Your task to perform on an android device: Open privacy settings Image 0: 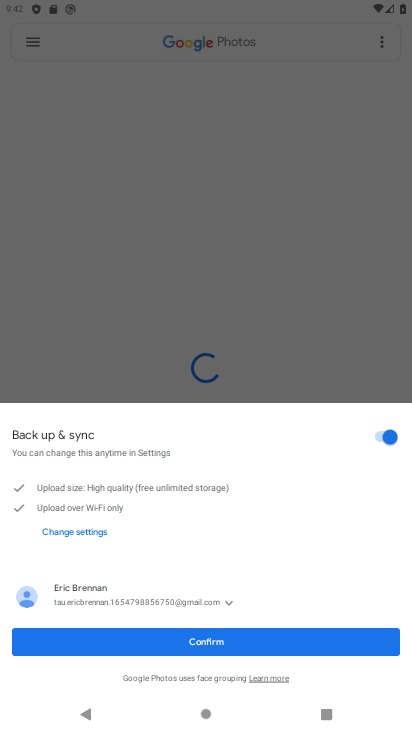
Step 0: press home button
Your task to perform on an android device: Open privacy settings Image 1: 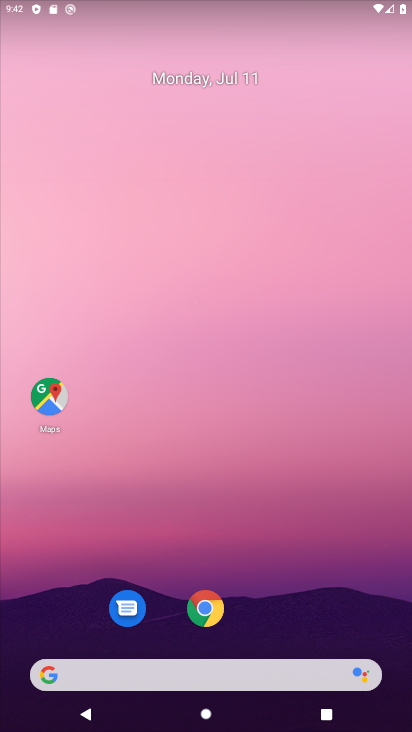
Step 1: drag from (69, 674) to (387, 71)
Your task to perform on an android device: Open privacy settings Image 2: 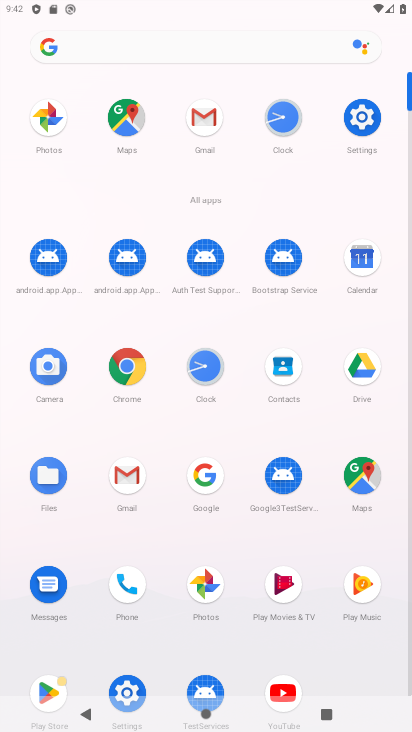
Step 2: click (133, 690)
Your task to perform on an android device: Open privacy settings Image 3: 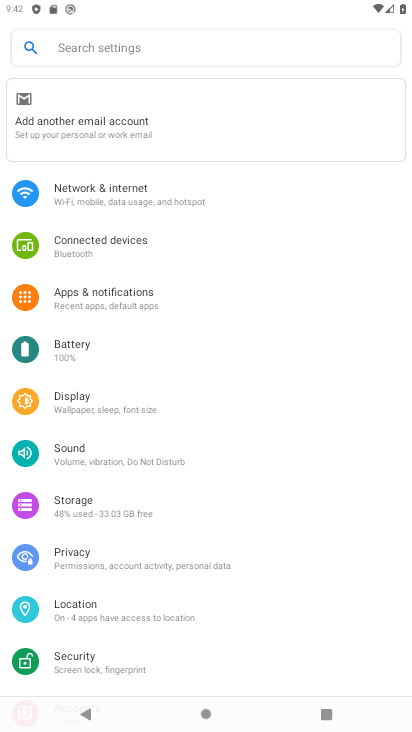
Step 3: click (89, 554)
Your task to perform on an android device: Open privacy settings Image 4: 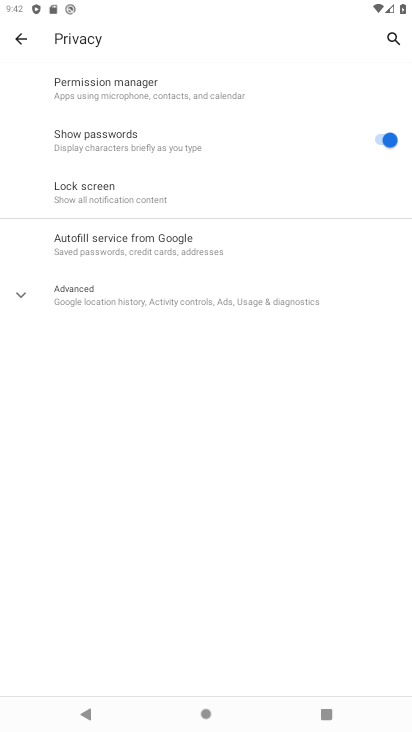
Step 4: task complete